Your task to perform on an android device: open app "Mercado Libre" (install if not already installed) Image 0: 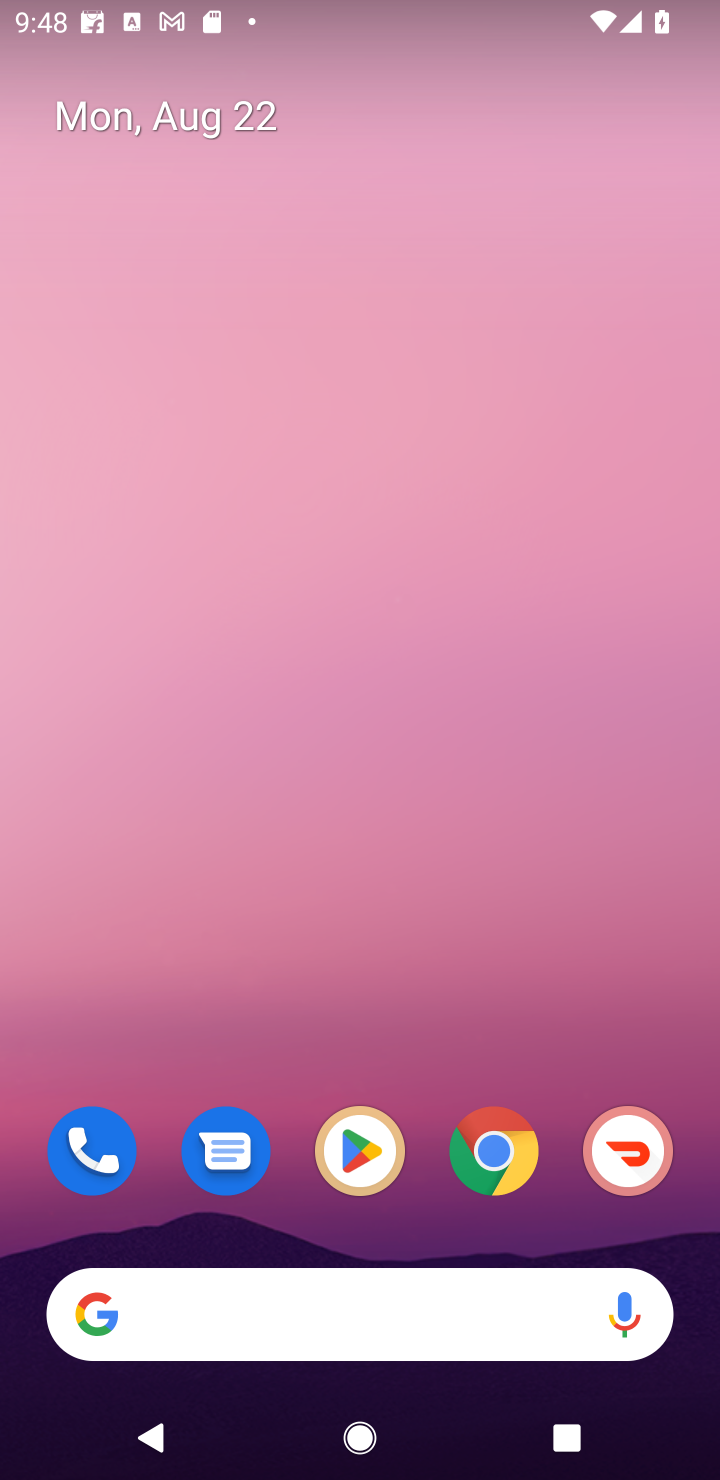
Step 0: press home button
Your task to perform on an android device: open app "Mercado Libre" (install if not already installed) Image 1: 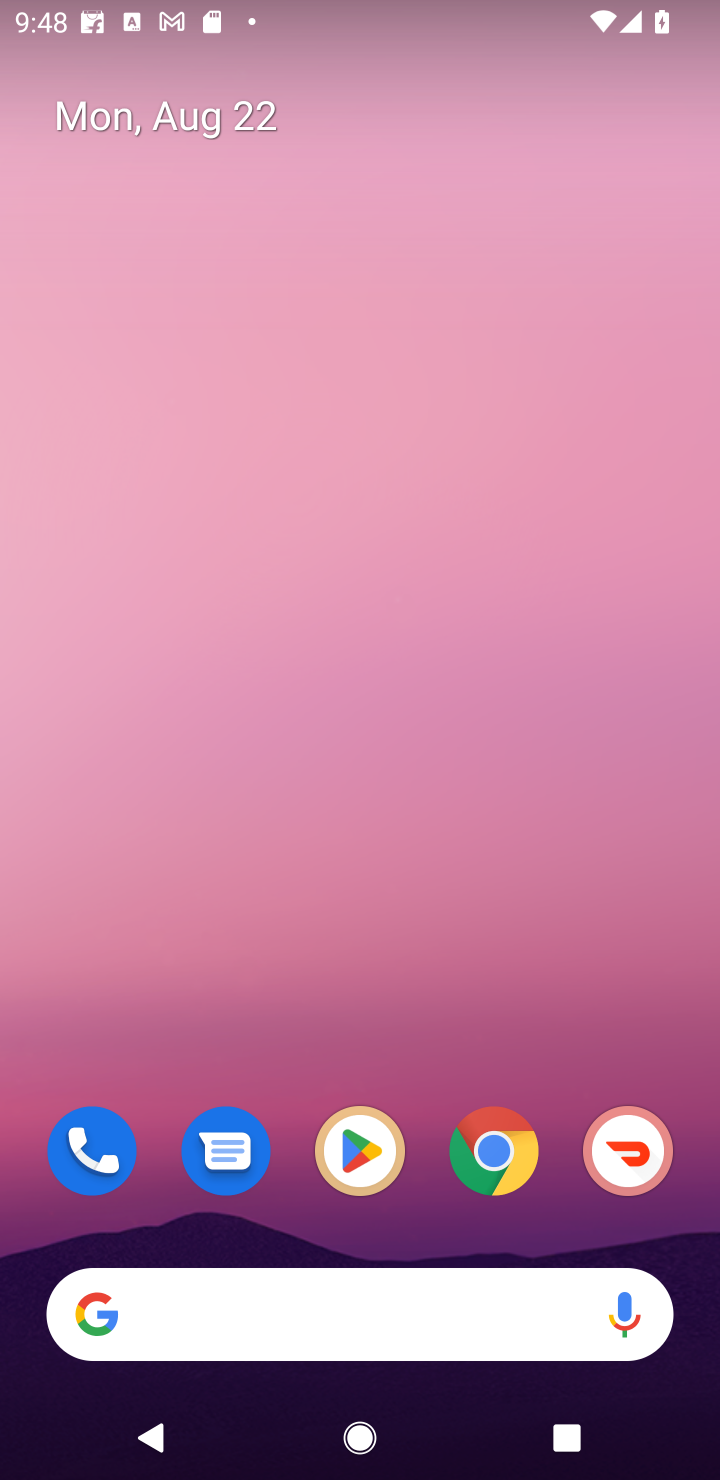
Step 1: click (351, 1140)
Your task to perform on an android device: open app "Mercado Libre" (install if not already installed) Image 2: 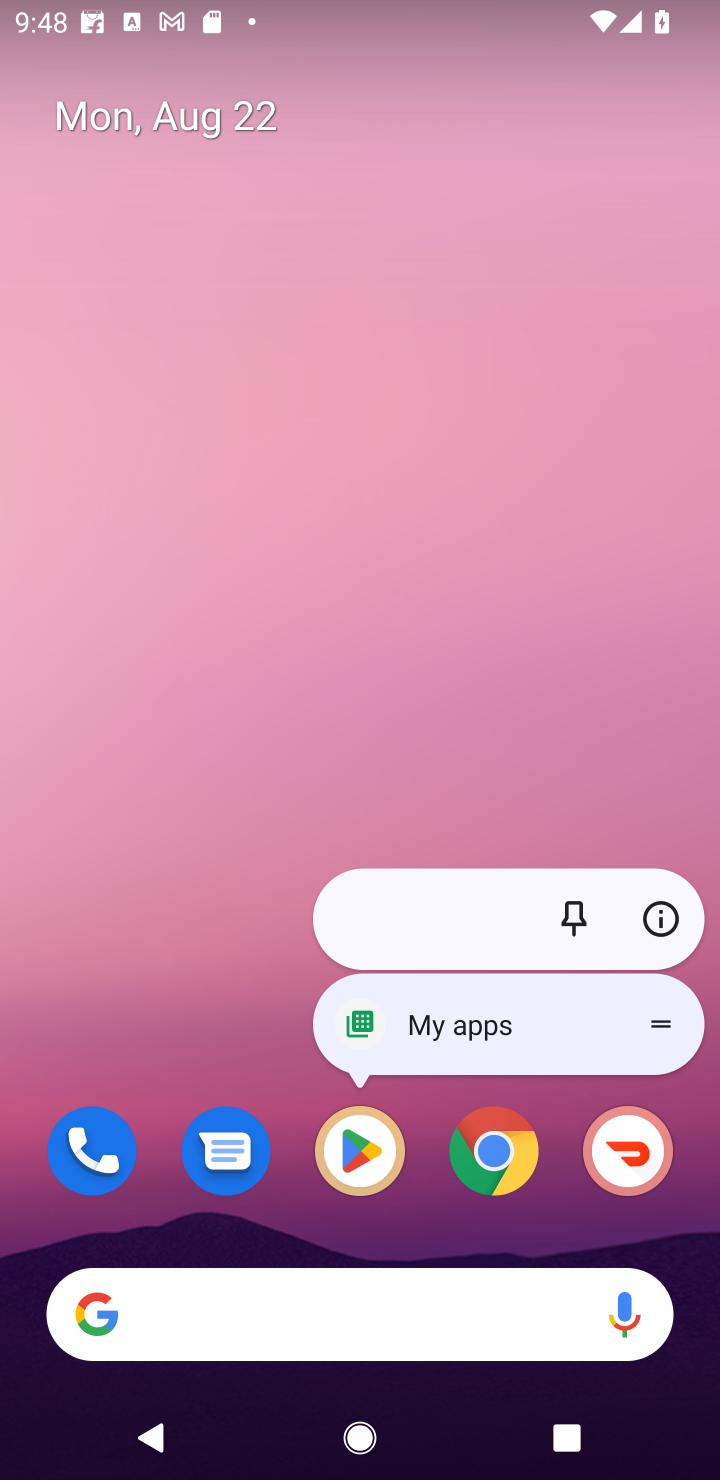
Step 2: click (351, 1151)
Your task to perform on an android device: open app "Mercado Libre" (install if not already installed) Image 3: 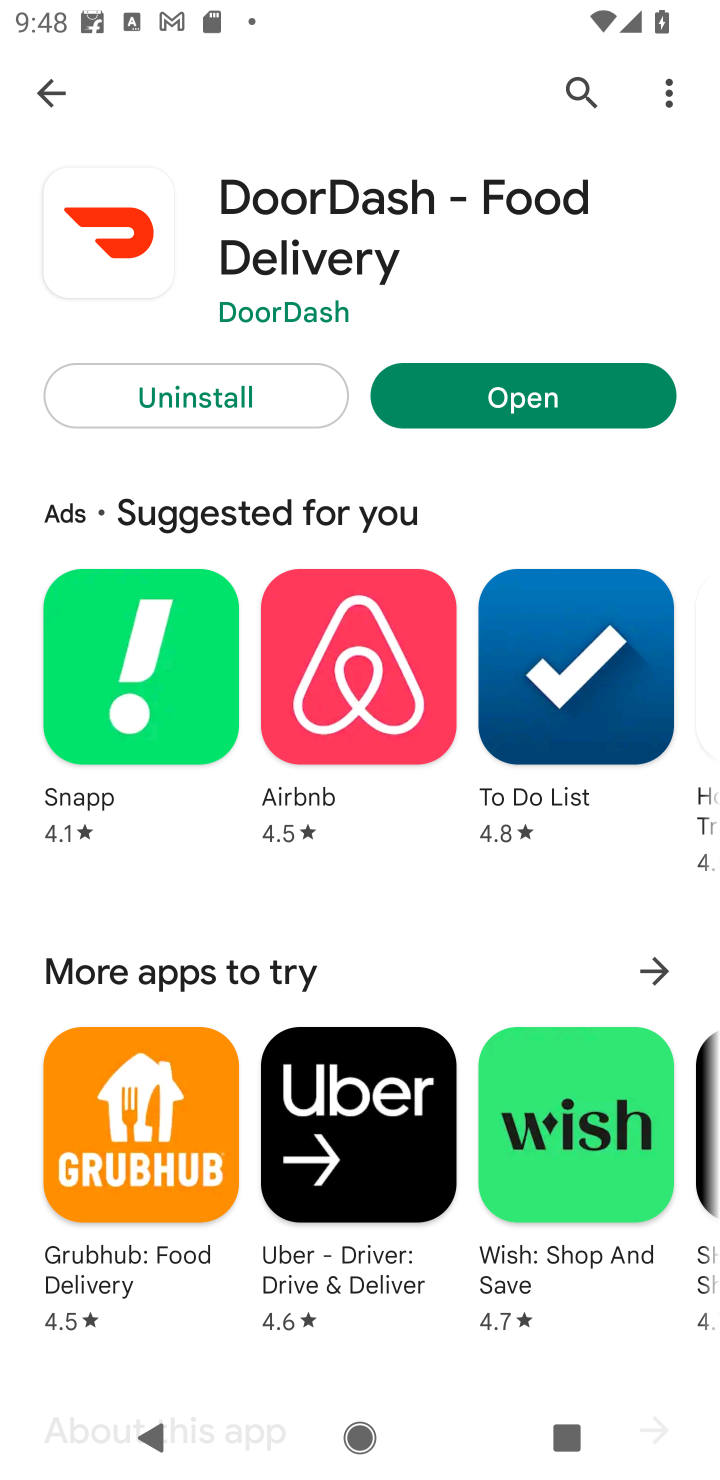
Step 3: click (579, 79)
Your task to perform on an android device: open app "Mercado Libre" (install if not already installed) Image 4: 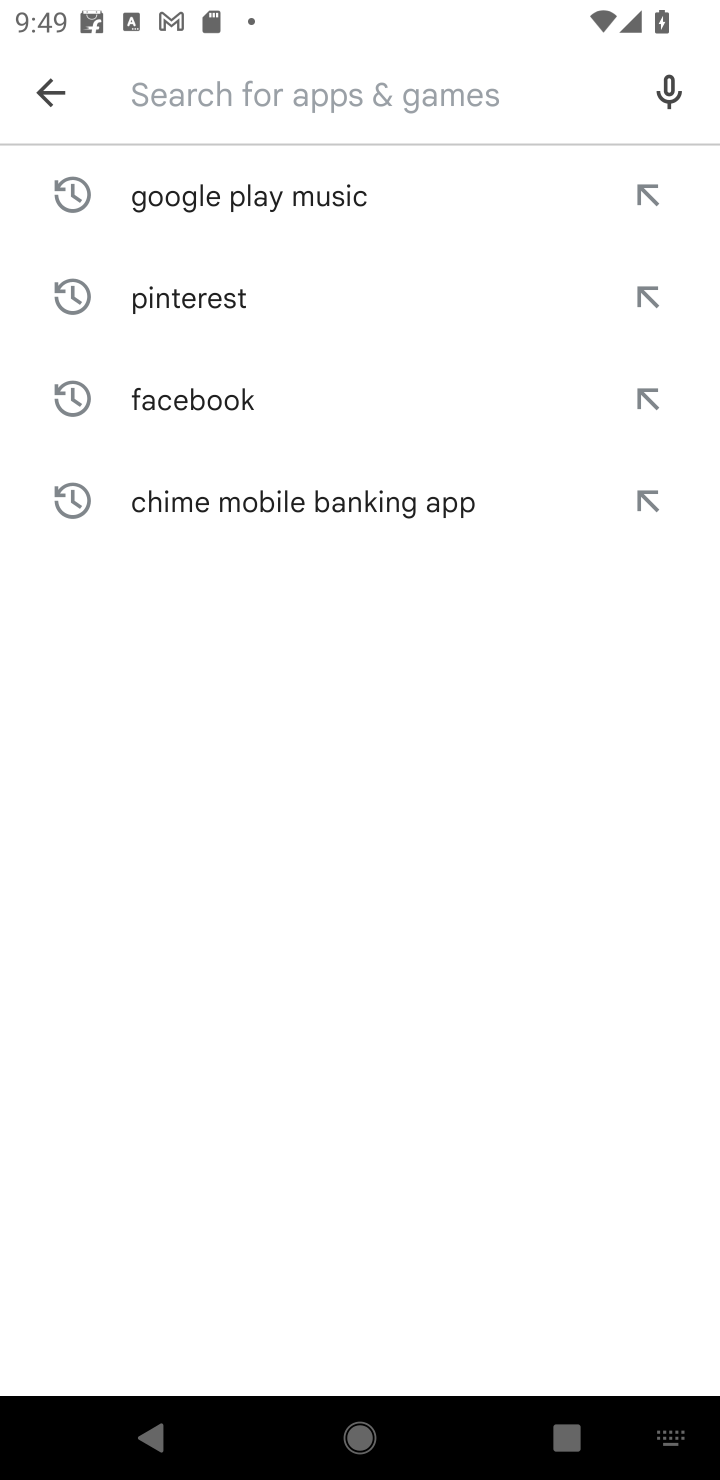
Step 4: type "Mercado Libre"
Your task to perform on an android device: open app "Mercado Libre" (install if not already installed) Image 5: 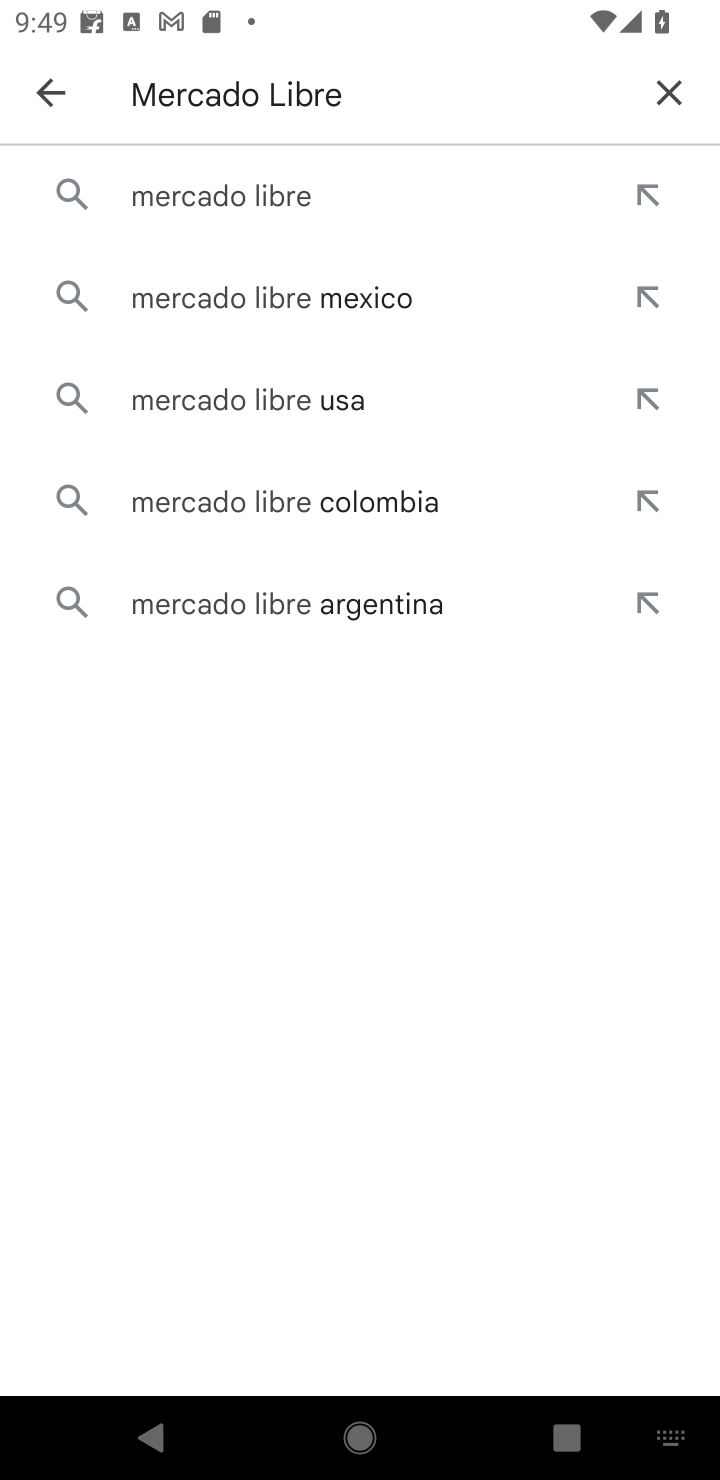
Step 5: click (268, 199)
Your task to perform on an android device: open app "Mercado Libre" (install if not already installed) Image 6: 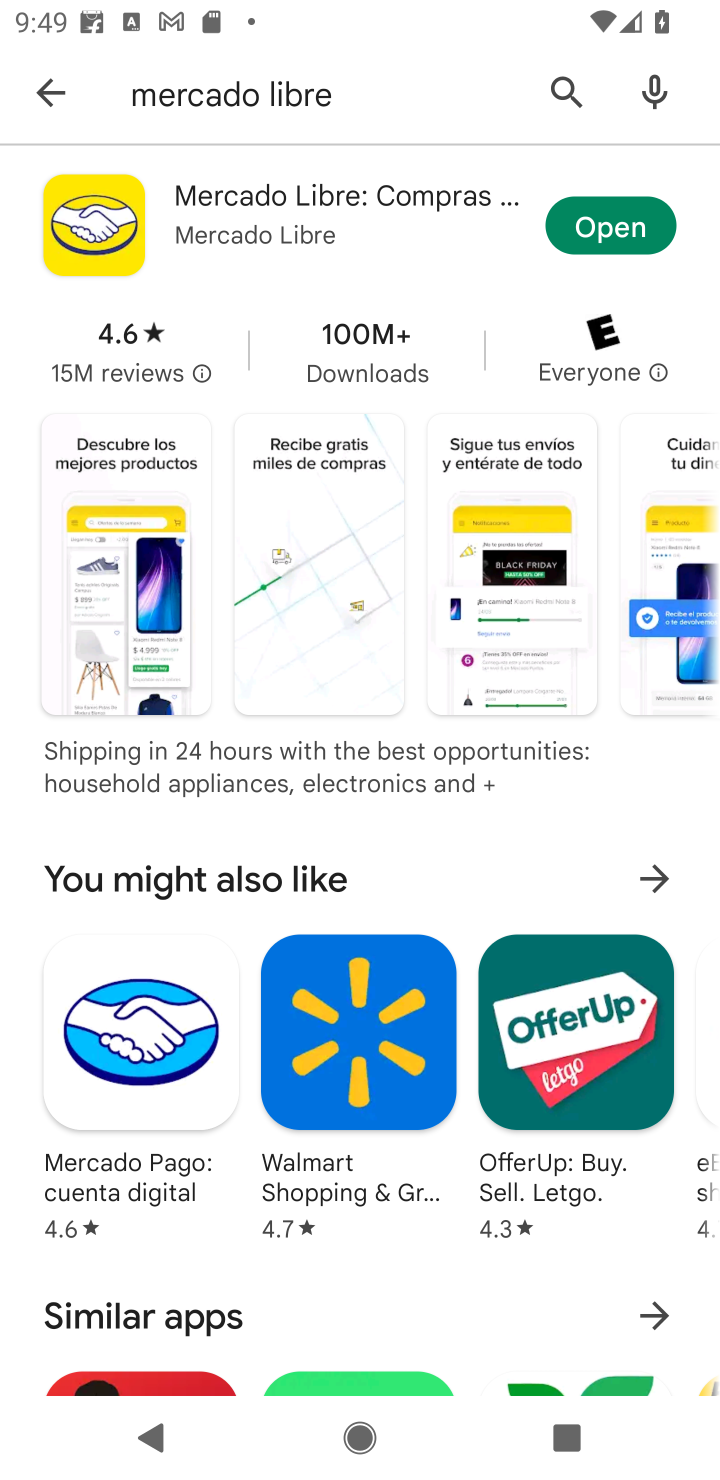
Step 6: click (614, 225)
Your task to perform on an android device: open app "Mercado Libre" (install if not already installed) Image 7: 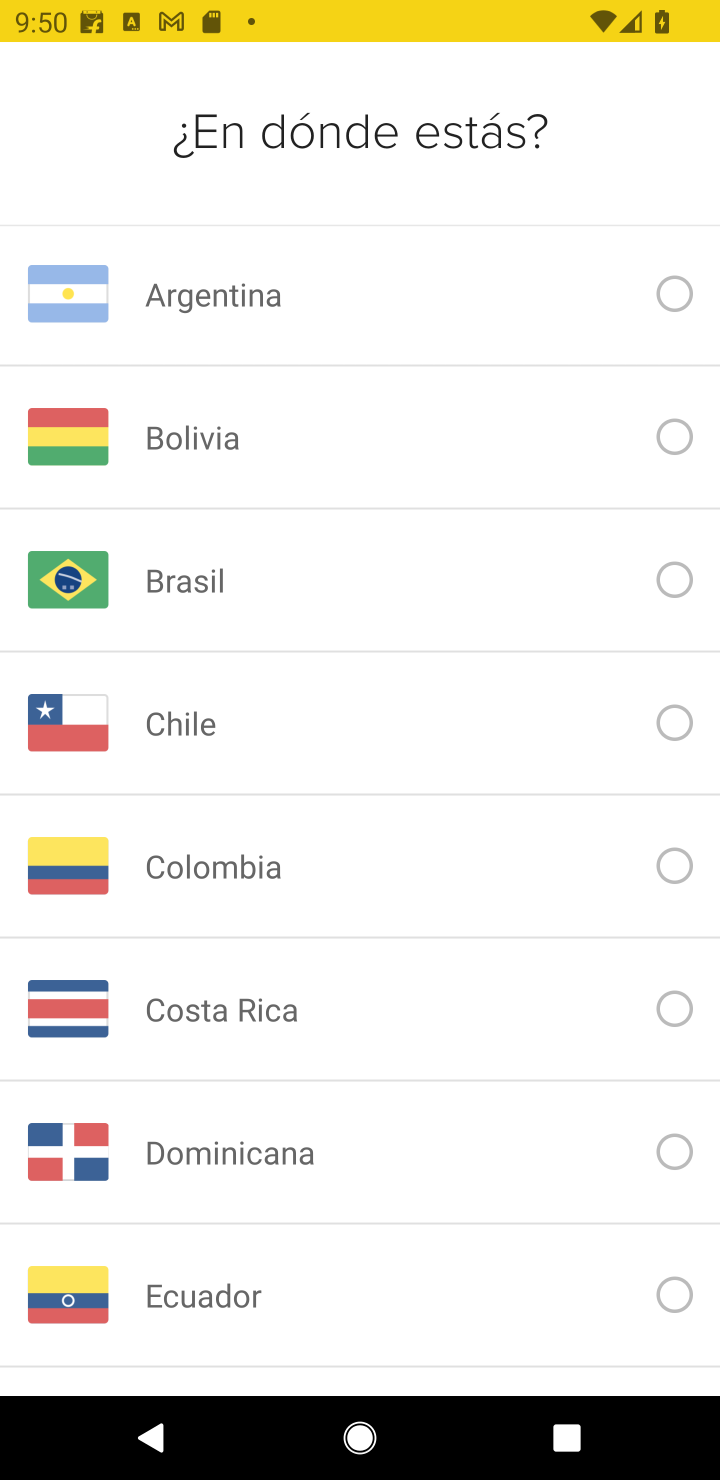
Step 7: task complete